Your task to perform on an android device: move an email to a new category in the gmail app Image 0: 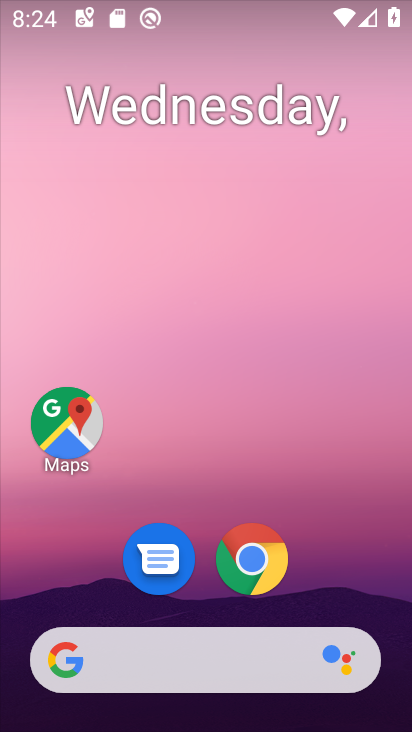
Step 0: drag from (365, 567) to (298, 110)
Your task to perform on an android device: move an email to a new category in the gmail app Image 1: 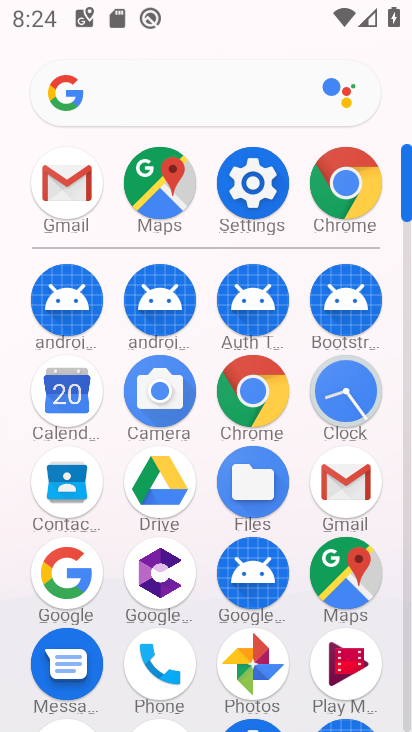
Step 1: click (353, 474)
Your task to perform on an android device: move an email to a new category in the gmail app Image 2: 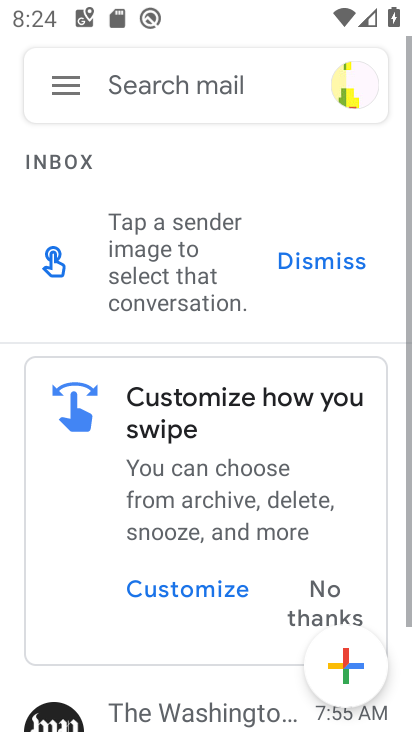
Step 2: drag from (191, 694) to (212, 284)
Your task to perform on an android device: move an email to a new category in the gmail app Image 3: 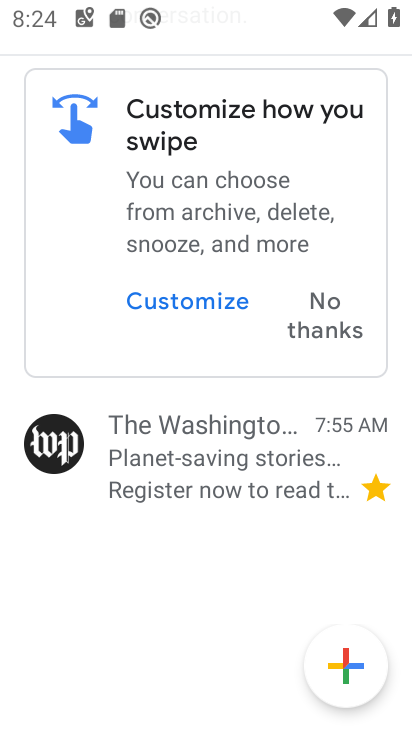
Step 3: click (275, 442)
Your task to perform on an android device: move an email to a new category in the gmail app Image 4: 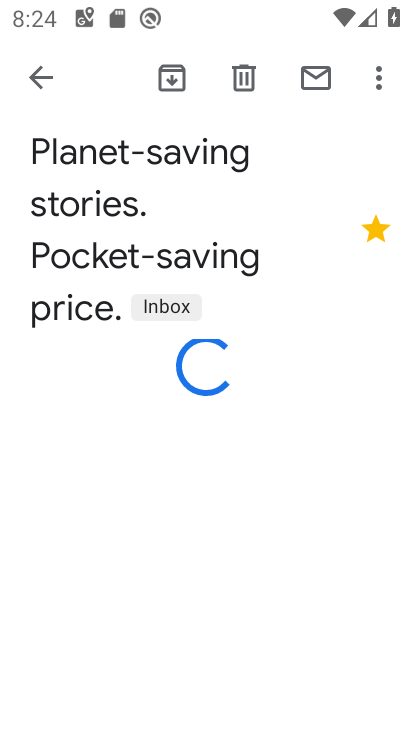
Step 4: click (381, 67)
Your task to perform on an android device: move an email to a new category in the gmail app Image 5: 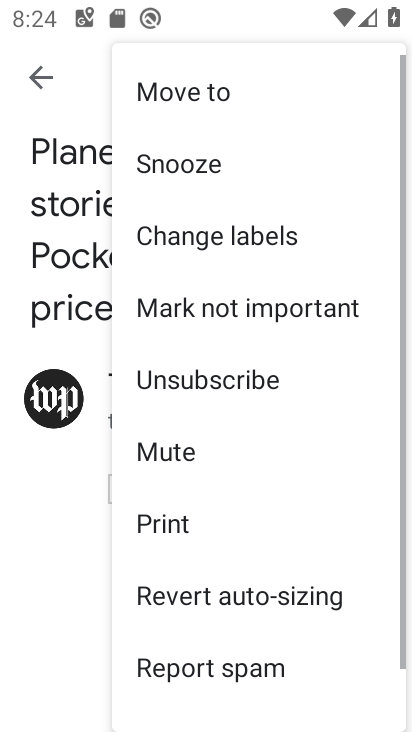
Step 5: click (211, 103)
Your task to perform on an android device: move an email to a new category in the gmail app Image 6: 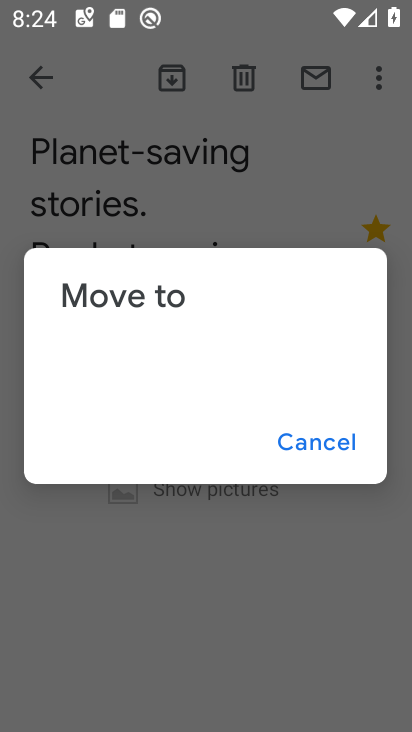
Step 6: task complete